Your task to perform on an android device: turn notification dots on Image 0: 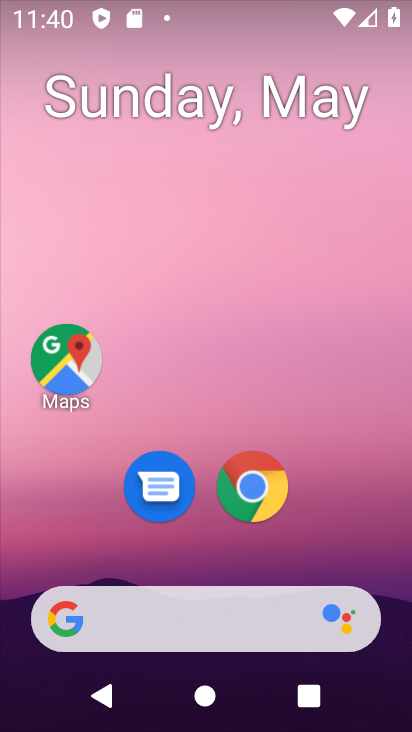
Step 0: drag from (360, 535) to (383, 44)
Your task to perform on an android device: turn notification dots on Image 1: 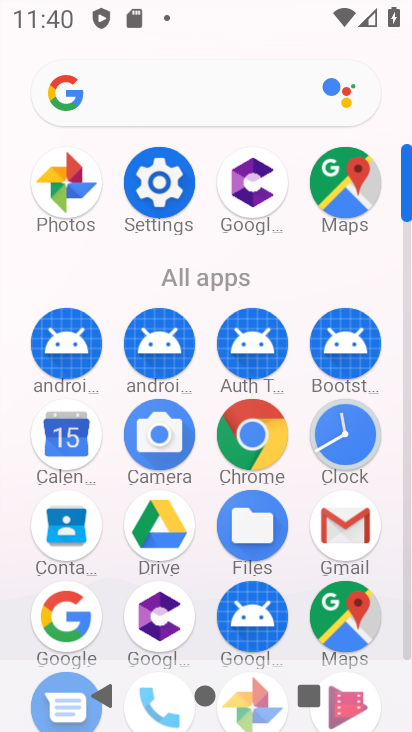
Step 1: click (158, 182)
Your task to perform on an android device: turn notification dots on Image 2: 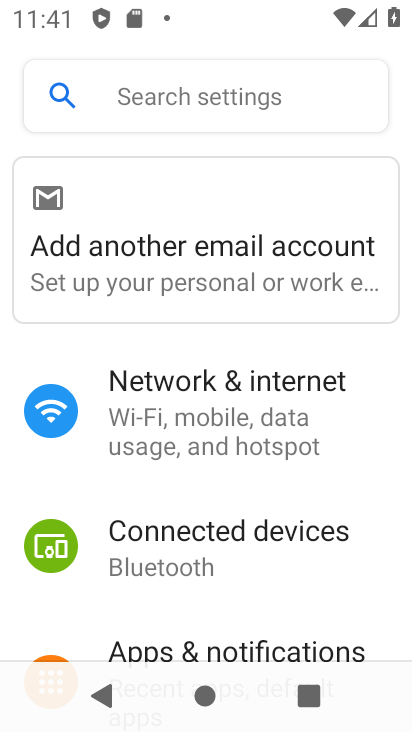
Step 2: drag from (262, 636) to (313, 335)
Your task to perform on an android device: turn notification dots on Image 3: 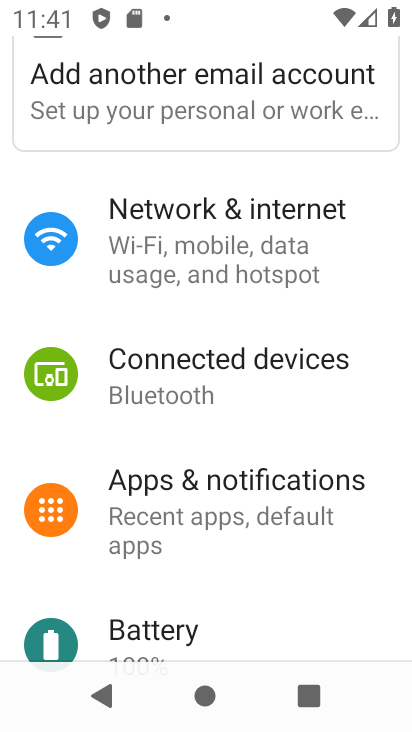
Step 3: click (184, 505)
Your task to perform on an android device: turn notification dots on Image 4: 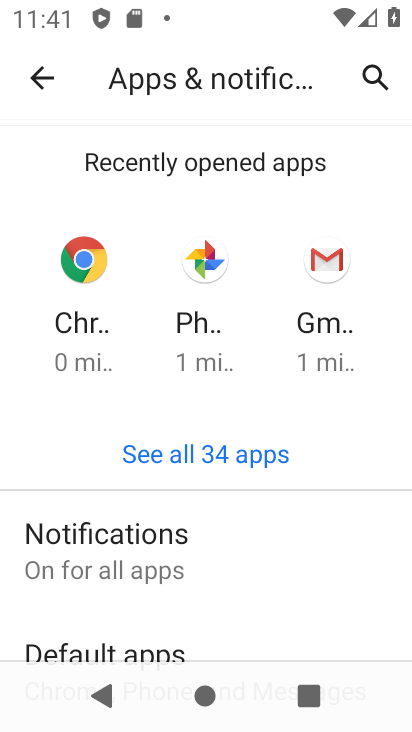
Step 4: click (101, 545)
Your task to perform on an android device: turn notification dots on Image 5: 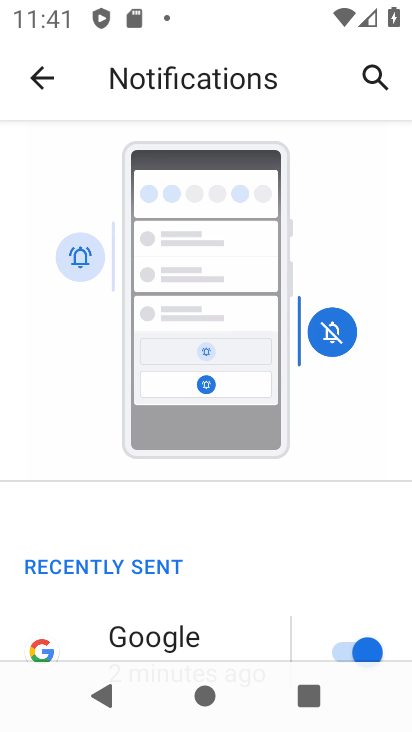
Step 5: drag from (188, 523) to (343, 22)
Your task to perform on an android device: turn notification dots on Image 6: 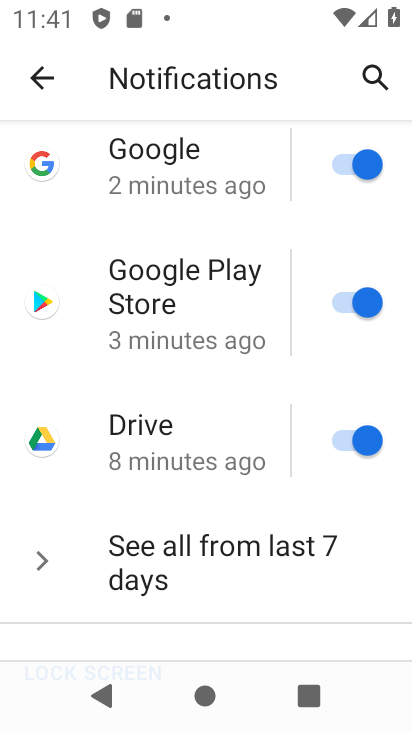
Step 6: drag from (151, 516) to (249, 0)
Your task to perform on an android device: turn notification dots on Image 7: 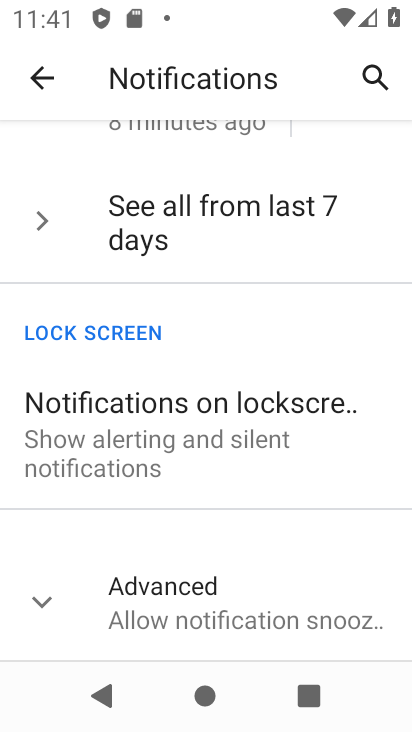
Step 7: drag from (204, 514) to (334, 30)
Your task to perform on an android device: turn notification dots on Image 8: 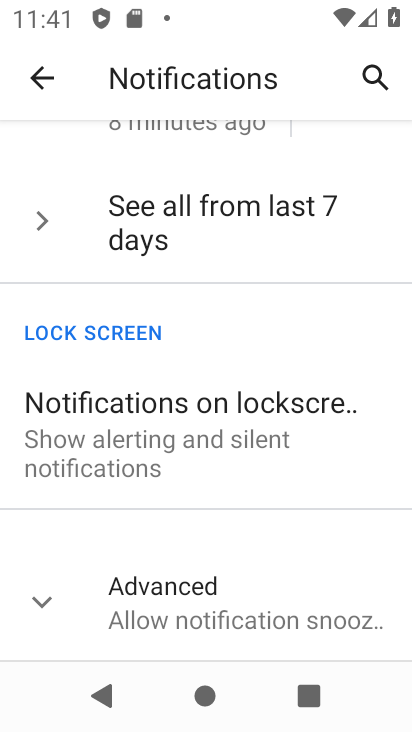
Step 8: click (176, 610)
Your task to perform on an android device: turn notification dots on Image 9: 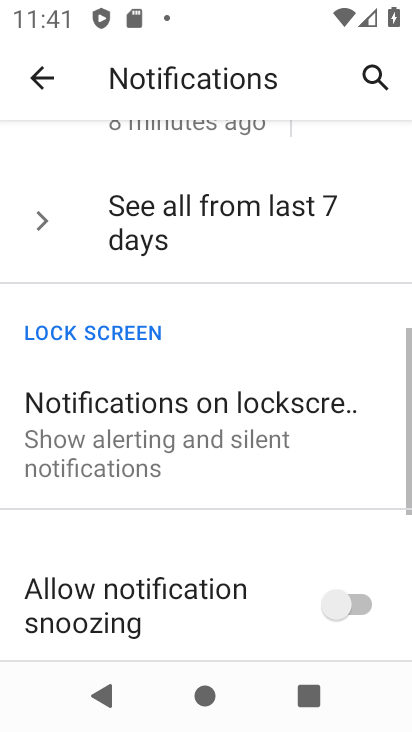
Step 9: task complete